Your task to perform on an android device: toggle show notifications on the lock screen Image 0: 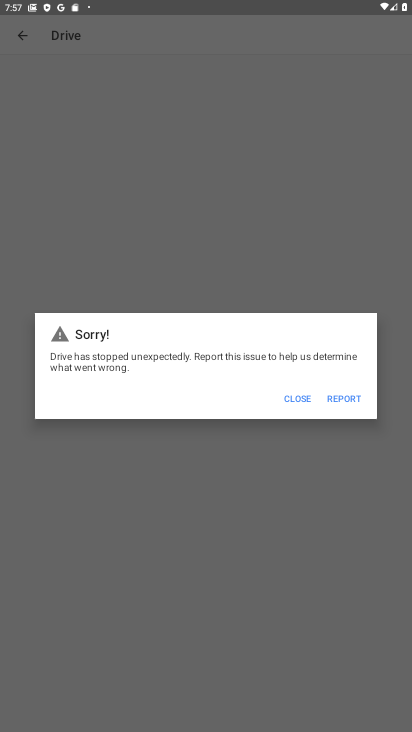
Step 0: press home button
Your task to perform on an android device: toggle show notifications on the lock screen Image 1: 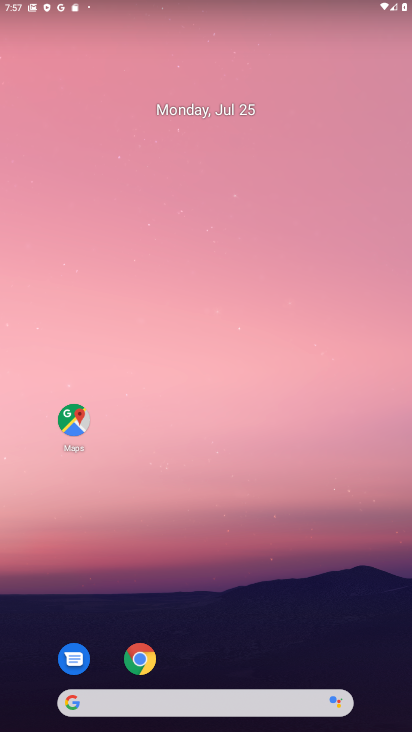
Step 1: drag from (247, 673) to (178, 21)
Your task to perform on an android device: toggle show notifications on the lock screen Image 2: 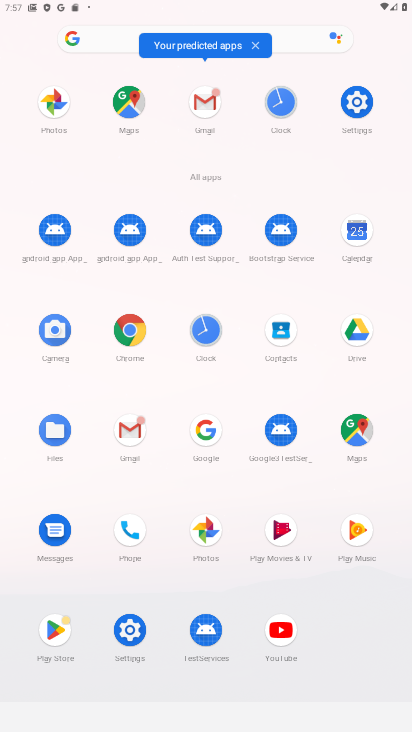
Step 2: click (110, 635)
Your task to perform on an android device: toggle show notifications on the lock screen Image 3: 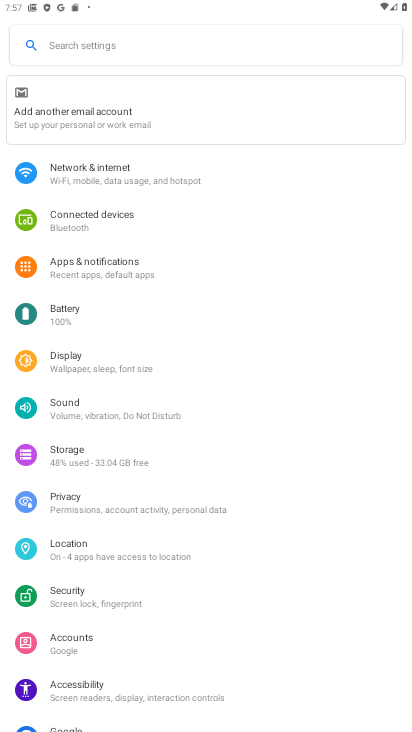
Step 3: click (151, 198)
Your task to perform on an android device: toggle show notifications on the lock screen Image 4: 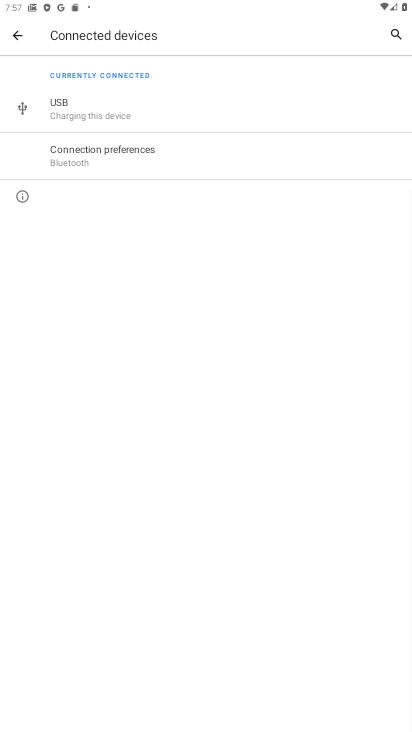
Step 4: click (22, 31)
Your task to perform on an android device: toggle show notifications on the lock screen Image 5: 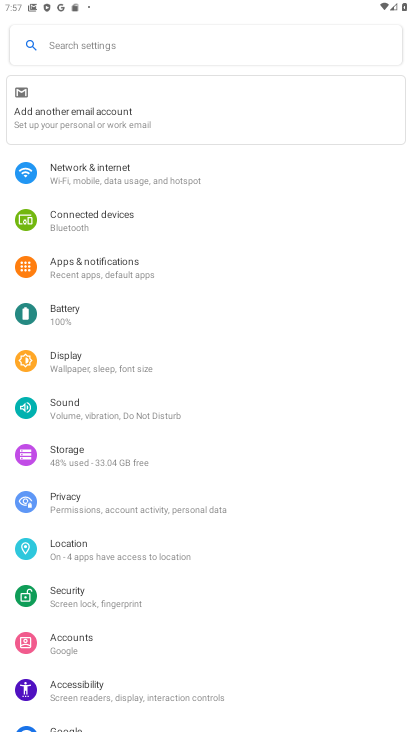
Step 5: click (54, 272)
Your task to perform on an android device: toggle show notifications on the lock screen Image 6: 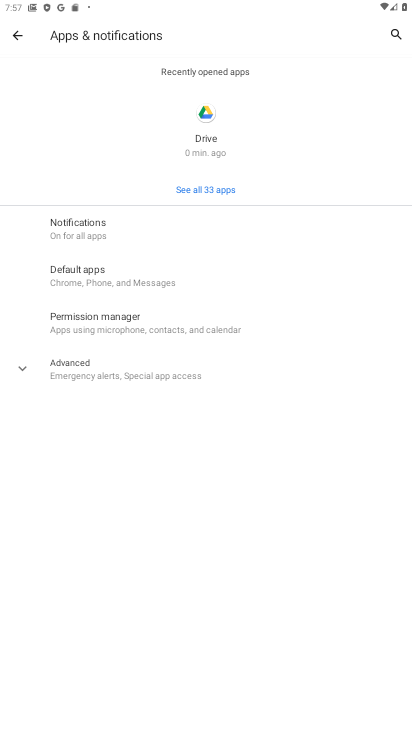
Step 6: click (114, 252)
Your task to perform on an android device: toggle show notifications on the lock screen Image 7: 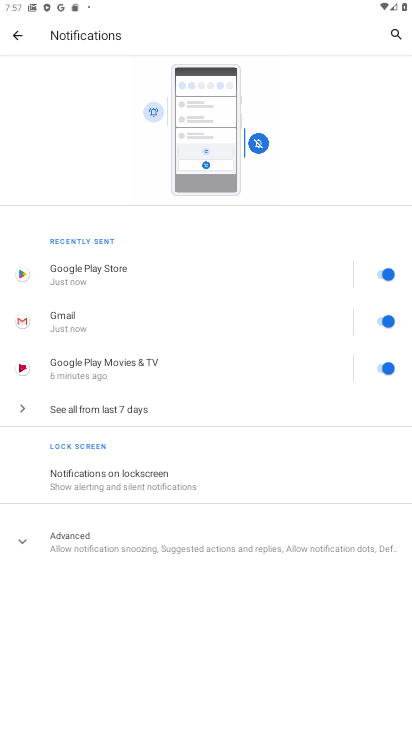
Step 7: click (147, 487)
Your task to perform on an android device: toggle show notifications on the lock screen Image 8: 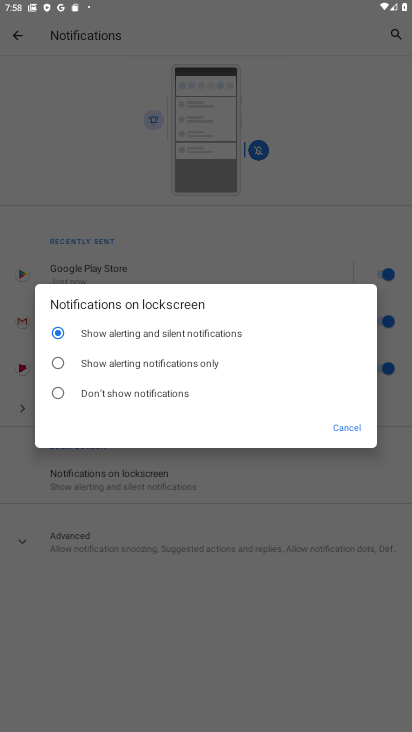
Step 8: task complete